Your task to perform on an android device: delete location history Image 0: 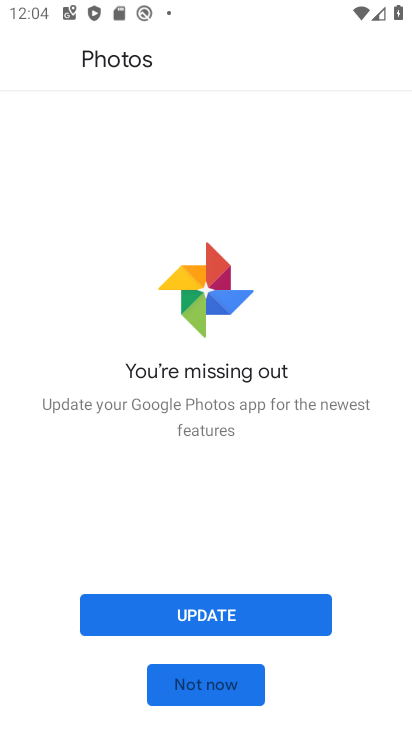
Step 0: press home button
Your task to perform on an android device: delete location history Image 1: 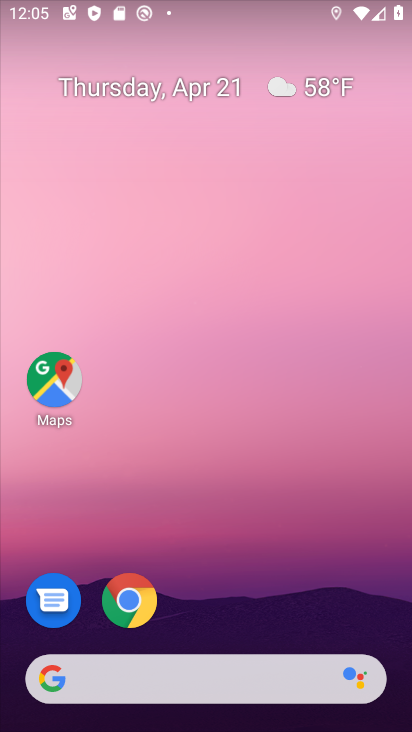
Step 1: drag from (190, 624) to (241, 16)
Your task to perform on an android device: delete location history Image 2: 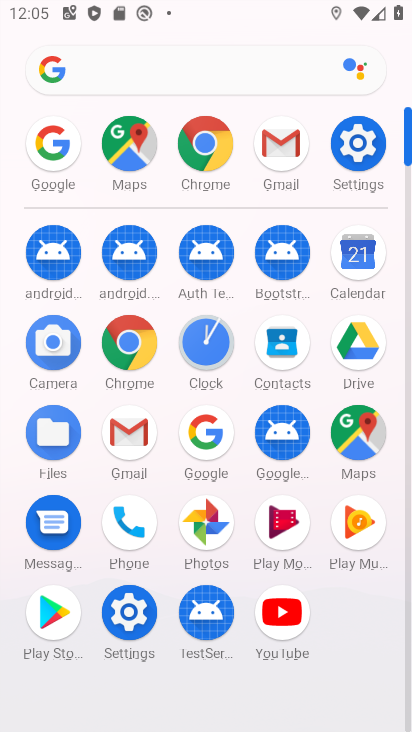
Step 2: click (143, 141)
Your task to perform on an android device: delete location history Image 3: 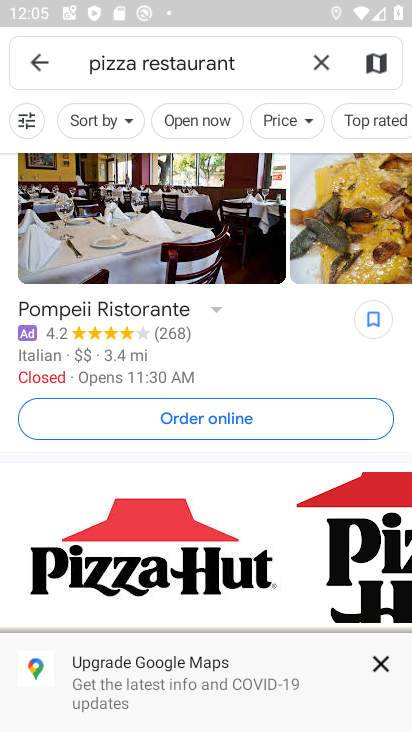
Step 3: click (38, 55)
Your task to perform on an android device: delete location history Image 4: 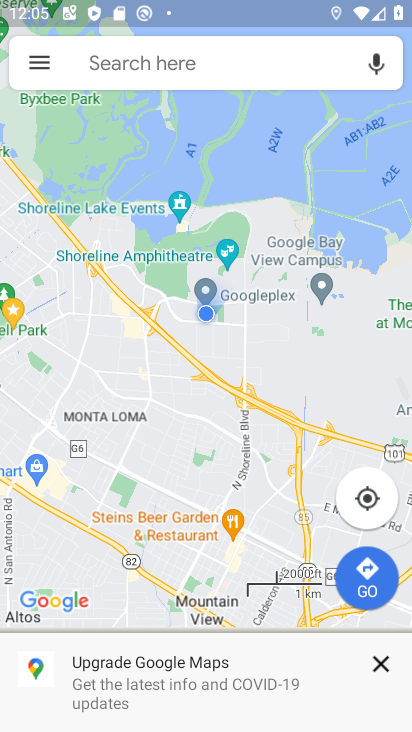
Step 4: click (38, 54)
Your task to perform on an android device: delete location history Image 5: 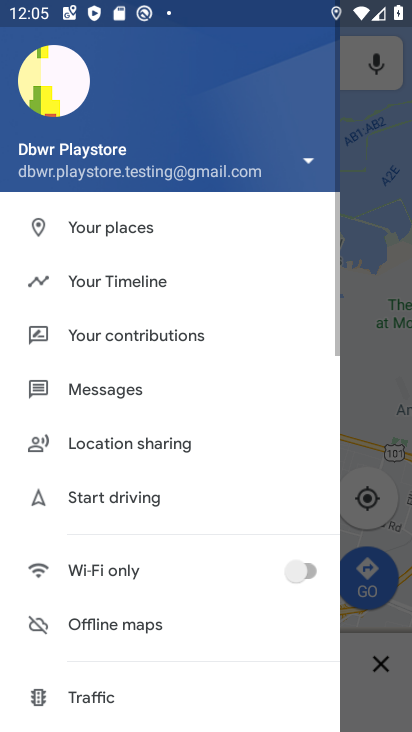
Step 5: drag from (133, 643) to (94, 212)
Your task to perform on an android device: delete location history Image 6: 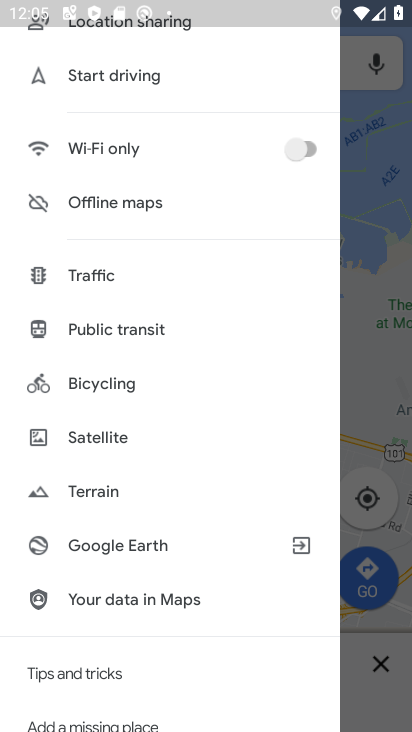
Step 6: drag from (177, 220) to (118, 609)
Your task to perform on an android device: delete location history Image 7: 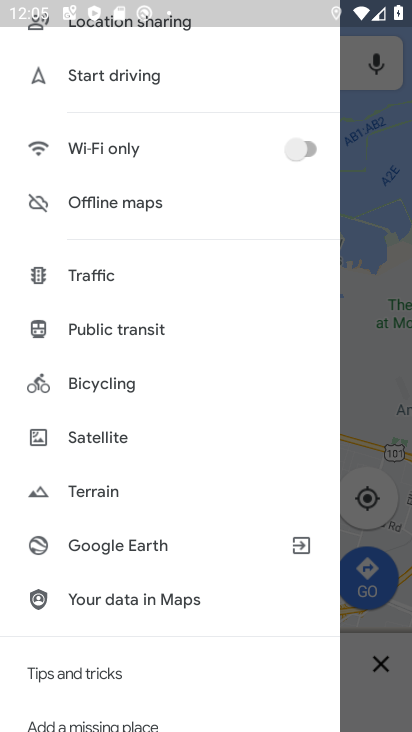
Step 7: drag from (168, 154) to (145, 666)
Your task to perform on an android device: delete location history Image 8: 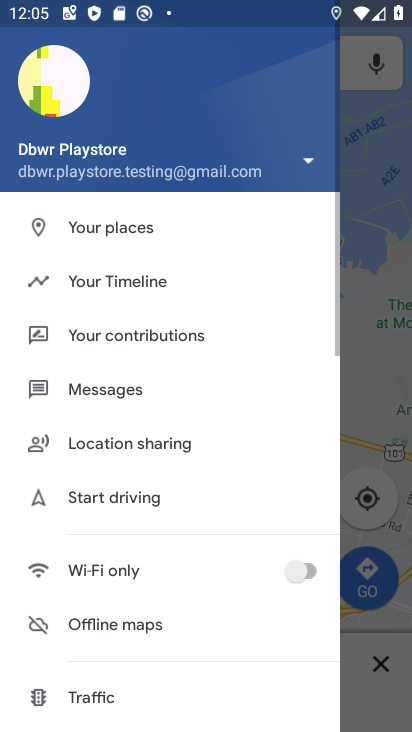
Step 8: click (100, 293)
Your task to perform on an android device: delete location history Image 9: 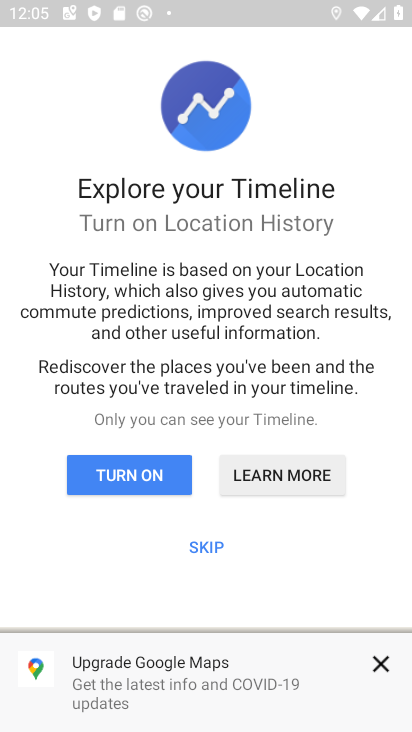
Step 9: click (200, 543)
Your task to perform on an android device: delete location history Image 10: 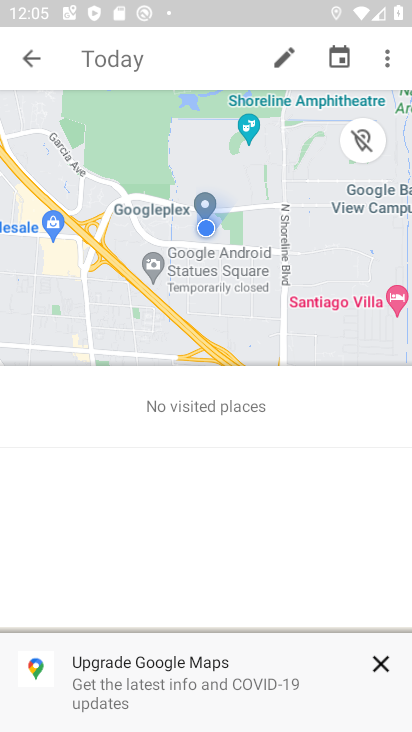
Step 10: click (383, 52)
Your task to perform on an android device: delete location history Image 11: 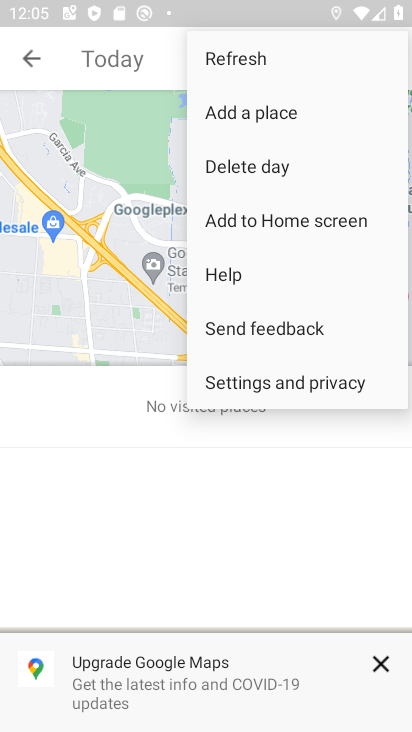
Step 11: click (311, 389)
Your task to perform on an android device: delete location history Image 12: 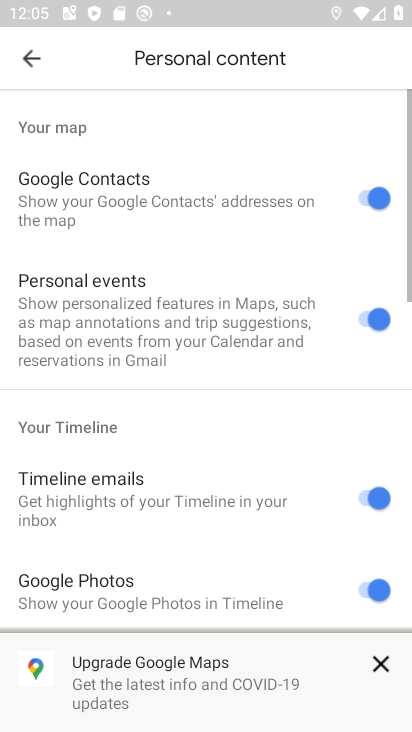
Step 12: drag from (294, 501) to (227, 14)
Your task to perform on an android device: delete location history Image 13: 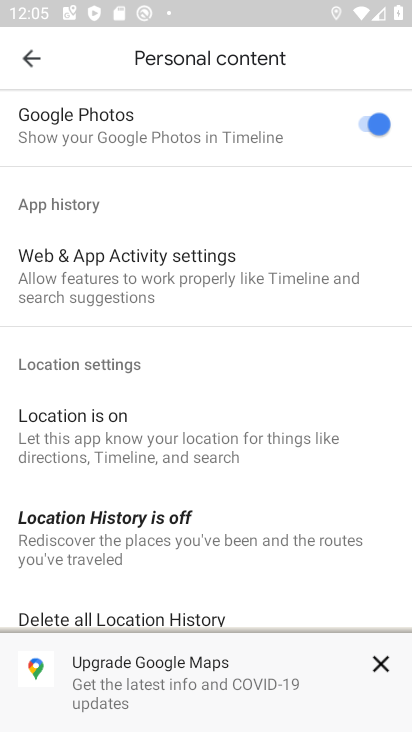
Step 13: click (170, 593)
Your task to perform on an android device: delete location history Image 14: 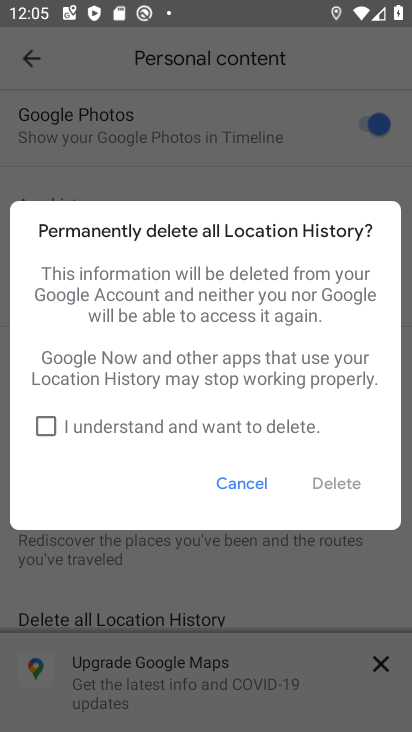
Step 14: click (49, 422)
Your task to perform on an android device: delete location history Image 15: 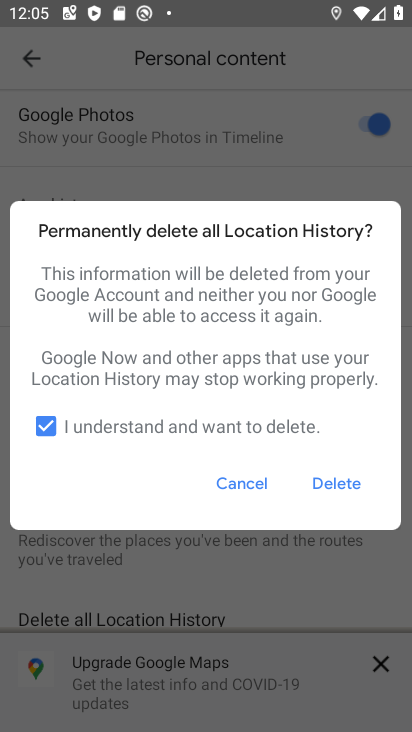
Step 15: click (343, 488)
Your task to perform on an android device: delete location history Image 16: 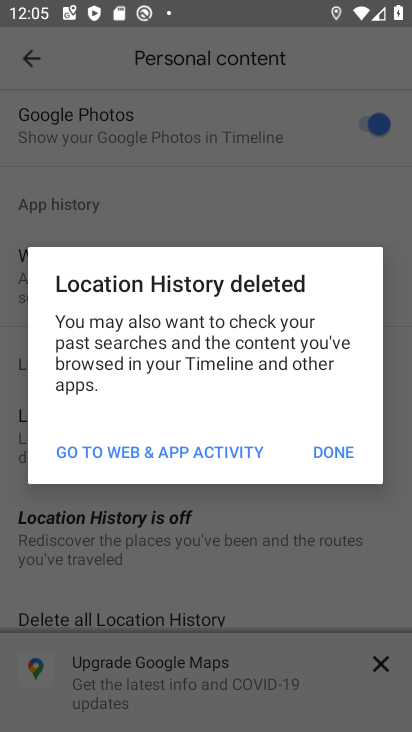
Step 16: click (347, 443)
Your task to perform on an android device: delete location history Image 17: 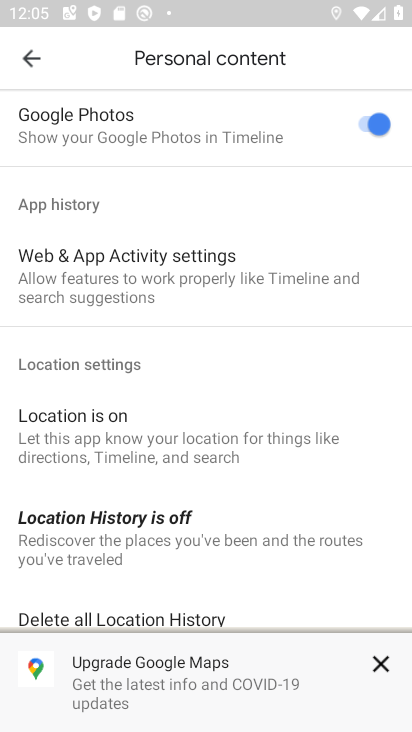
Step 17: task complete